Your task to perform on an android device: Do I have any events today? Image 0: 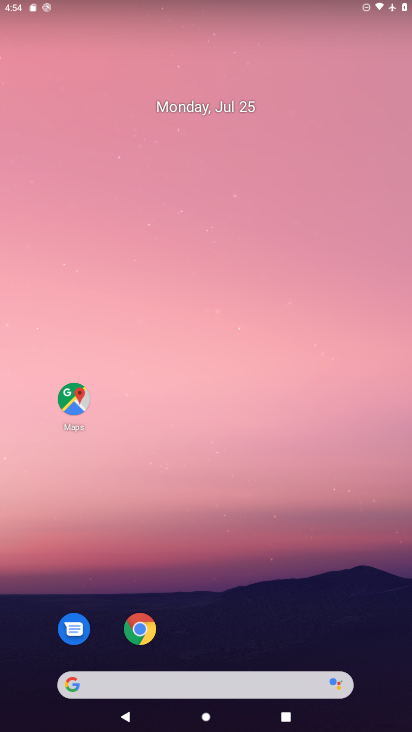
Step 0: drag from (222, 674) to (236, 111)
Your task to perform on an android device: Do I have any events today? Image 1: 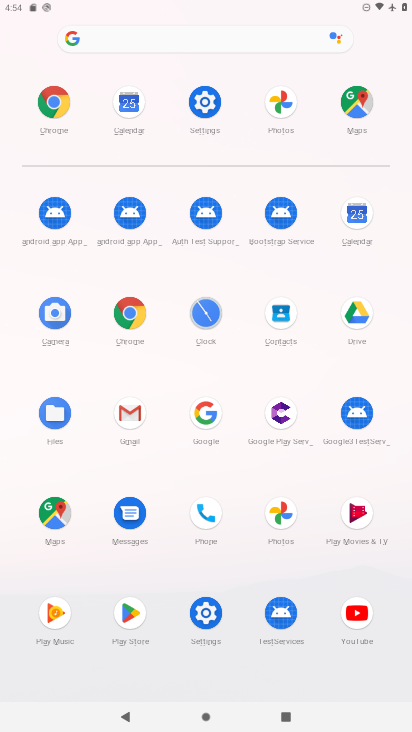
Step 1: click (356, 215)
Your task to perform on an android device: Do I have any events today? Image 2: 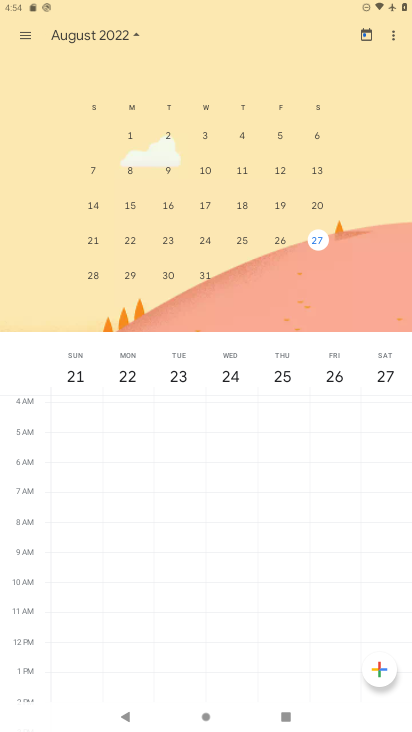
Step 2: drag from (158, 264) to (362, 250)
Your task to perform on an android device: Do I have any events today? Image 3: 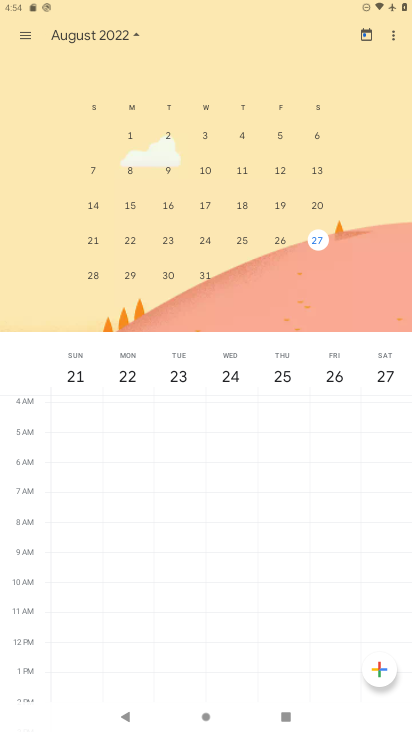
Step 3: click (236, 239)
Your task to perform on an android device: Do I have any events today? Image 4: 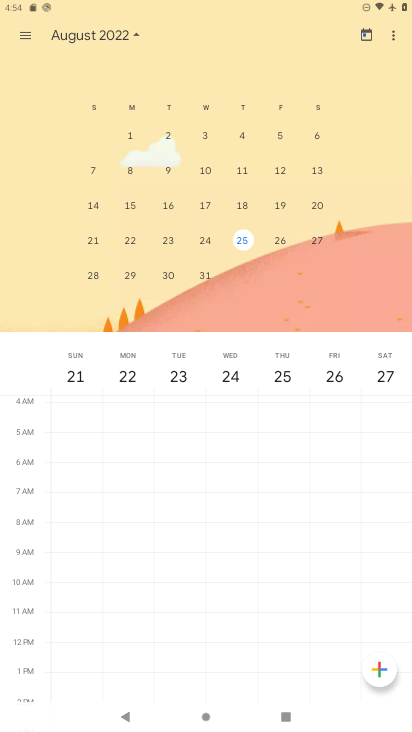
Step 4: drag from (7, 209) to (388, 230)
Your task to perform on an android device: Do I have any events today? Image 5: 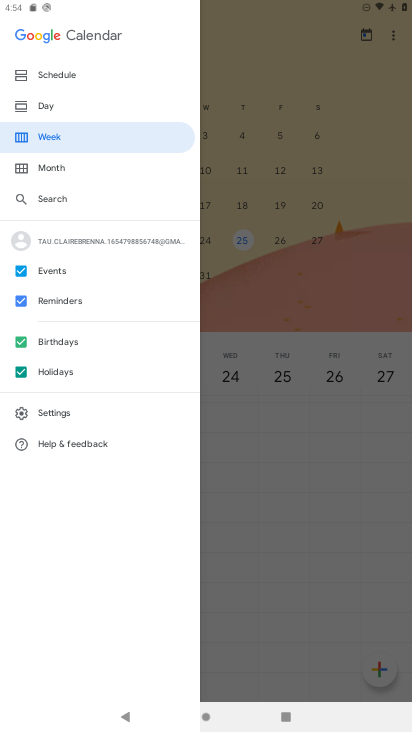
Step 5: click (347, 249)
Your task to perform on an android device: Do I have any events today? Image 6: 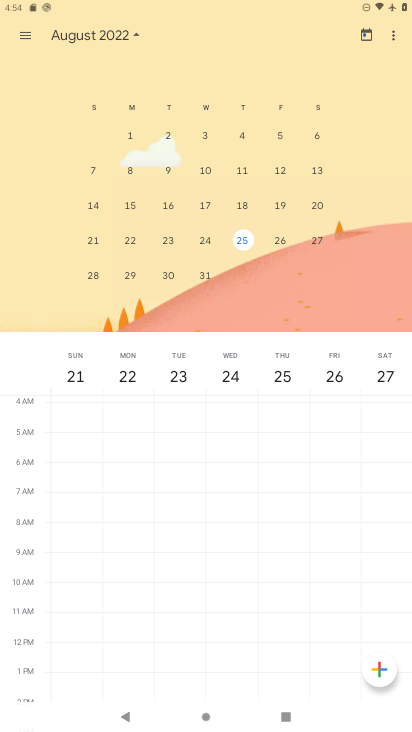
Step 6: click (362, 257)
Your task to perform on an android device: Do I have any events today? Image 7: 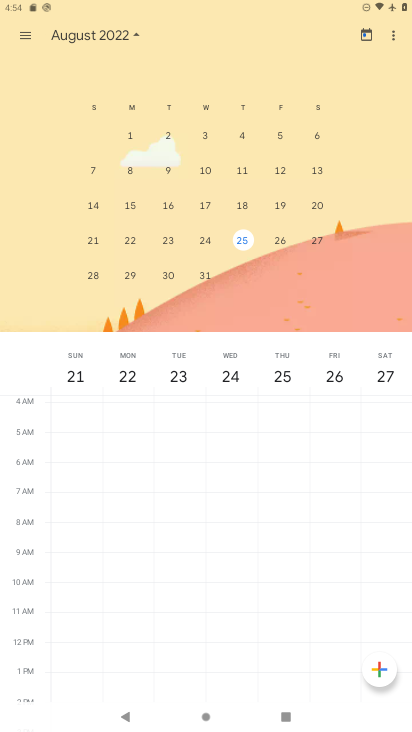
Step 7: drag from (68, 196) to (327, 207)
Your task to perform on an android device: Do I have any events today? Image 8: 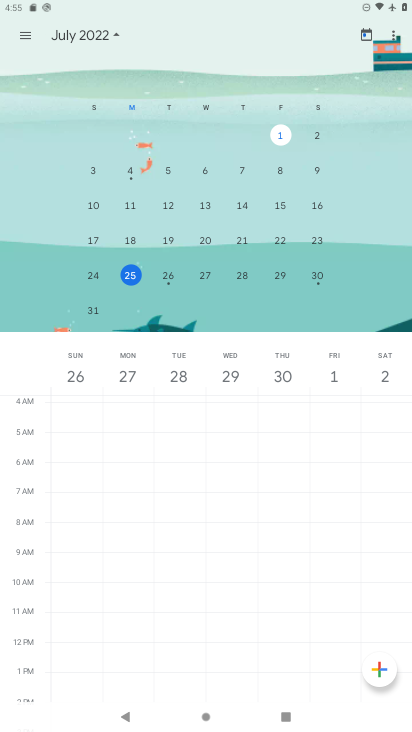
Step 8: click (125, 272)
Your task to perform on an android device: Do I have any events today? Image 9: 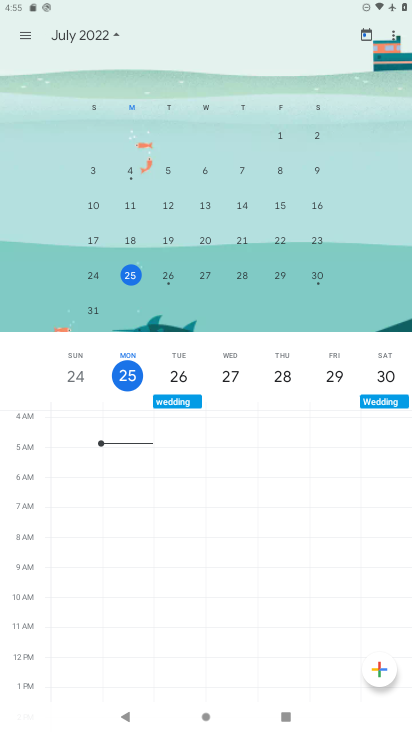
Step 9: task complete